Your task to perform on an android device: allow cookies in the chrome app Image 0: 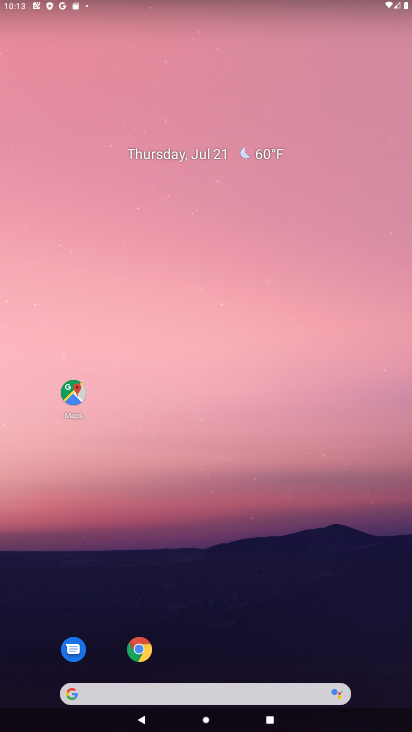
Step 0: click (137, 648)
Your task to perform on an android device: allow cookies in the chrome app Image 1: 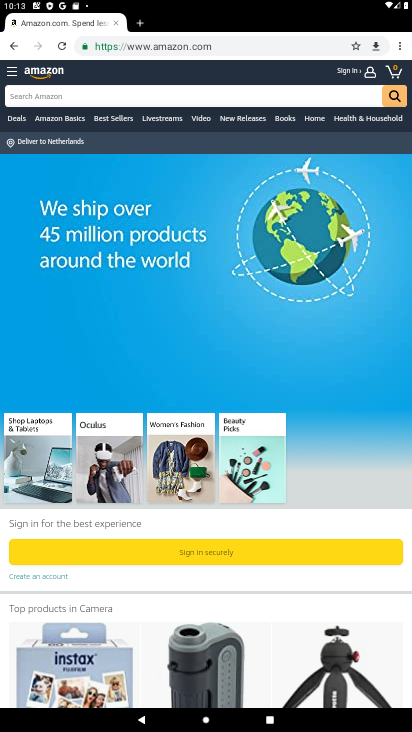
Step 1: click (400, 46)
Your task to perform on an android device: allow cookies in the chrome app Image 2: 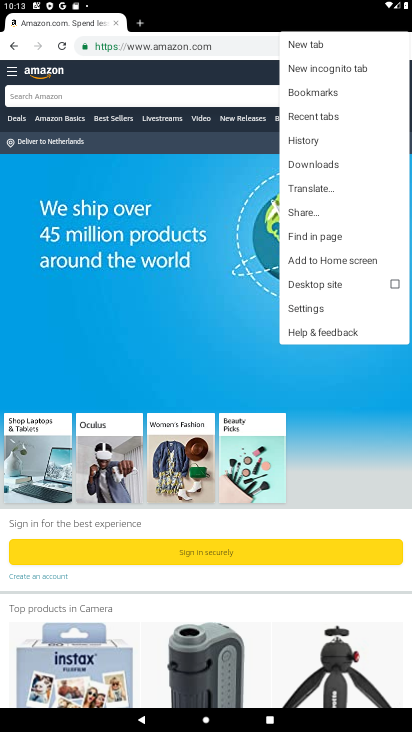
Step 2: click (317, 311)
Your task to perform on an android device: allow cookies in the chrome app Image 3: 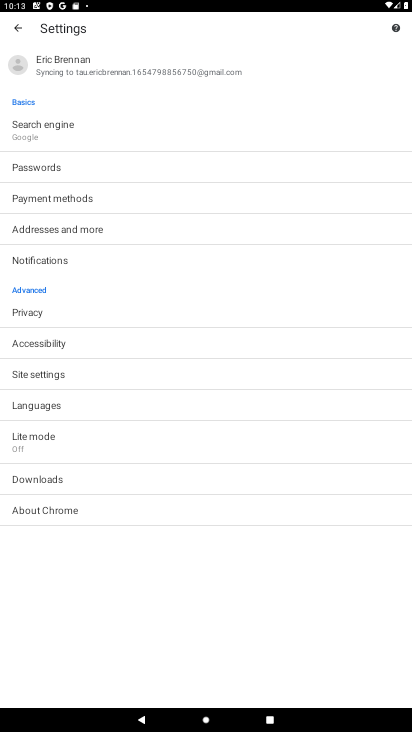
Step 3: click (40, 373)
Your task to perform on an android device: allow cookies in the chrome app Image 4: 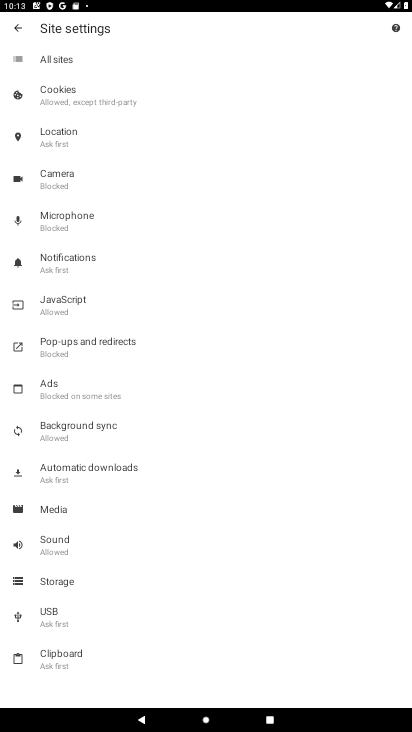
Step 4: click (95, 104)
Your task to perform on an android device: allow cookies in the chrome app Image 5: 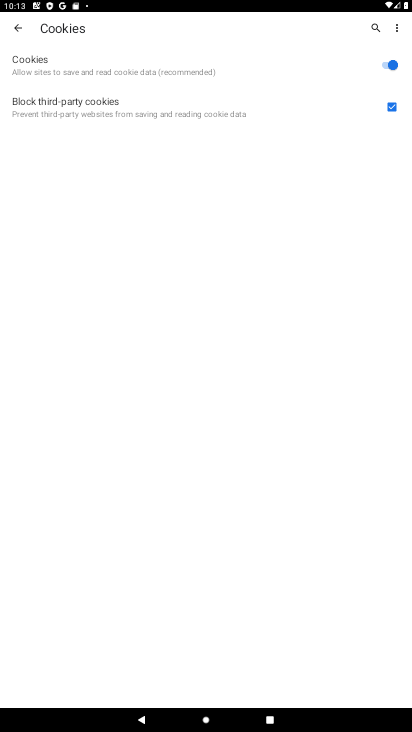
Step 5: task complete